Your task to perform on an android device: toggle show notifications on the lock screen Image 0: 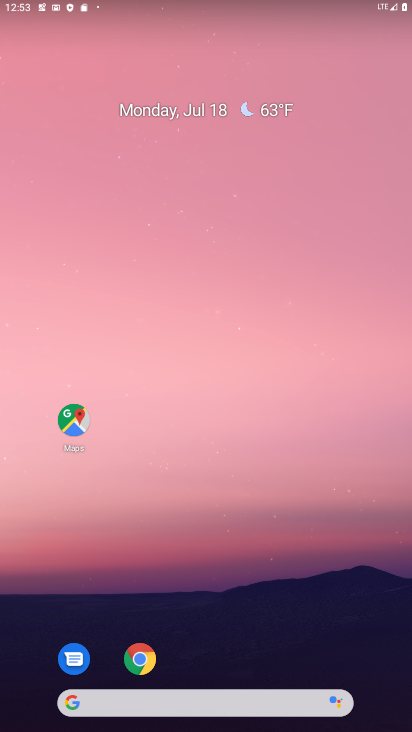
Step 0: drag from (257, 675) to (260, 11)
Your task to perform on an android device: toggle show notifications on the lock screen Image 1: 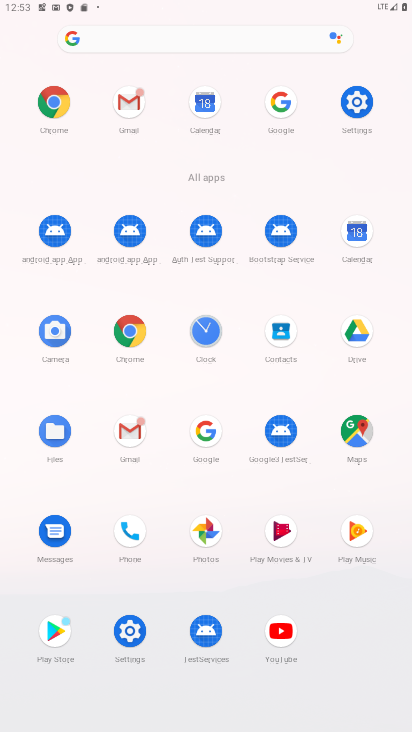
Step 1: click (363, 115)
Your task to perform on an android device: toggle show notifications on the lock screen Image 2: 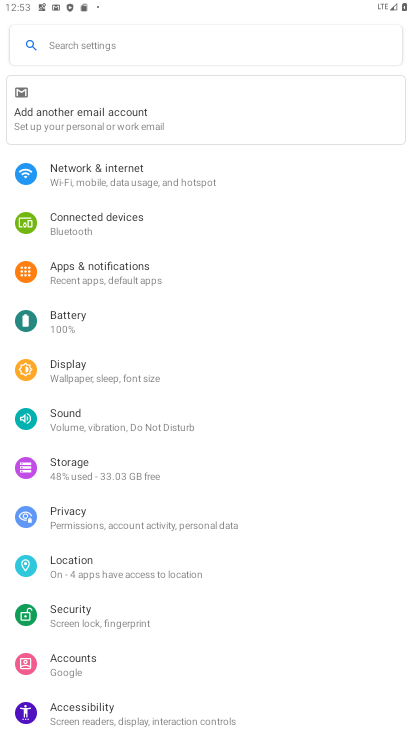
Step 2: click (66, 515)
Your task to perform on an android device: toggle show notifications on the lock screen Image 3: 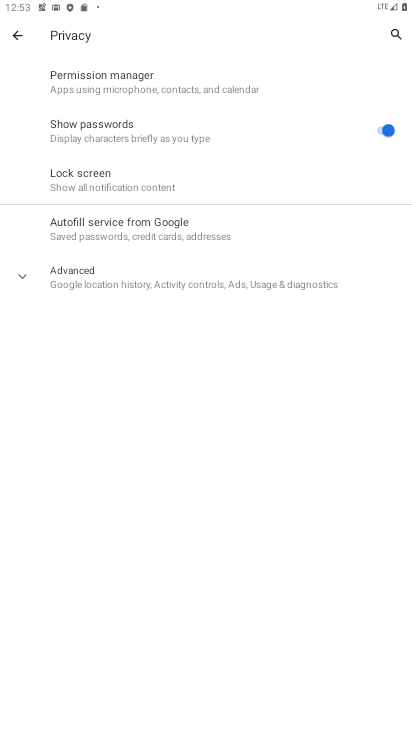
Step 3: click (99, 274)
Your task to perform on an android device: toggle show notifications on the lock screen Image 4: 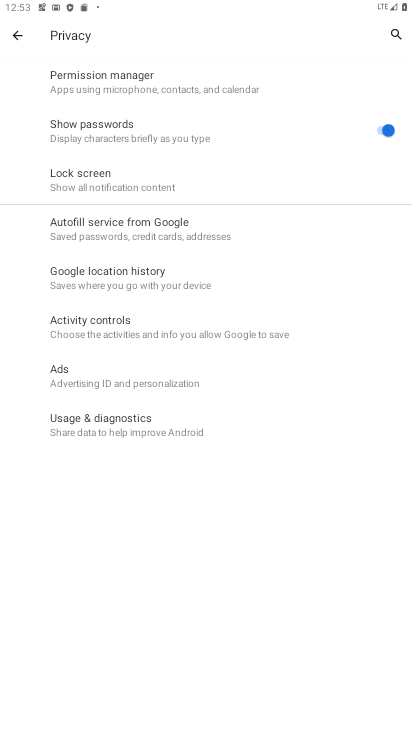
Step 4: click (87, 184)
Your task to perform on an android device: toggle show notifications on the lock screen Image 5: 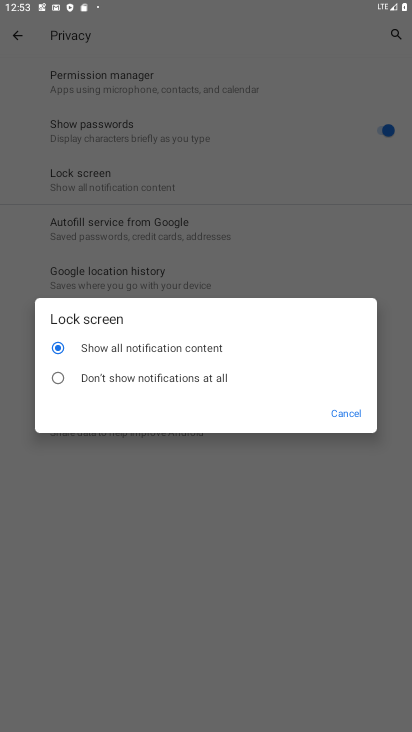
Step 5: click (187, 380)
Your task to perform on an android device: toggle show notifications on the lock screen Image 6: 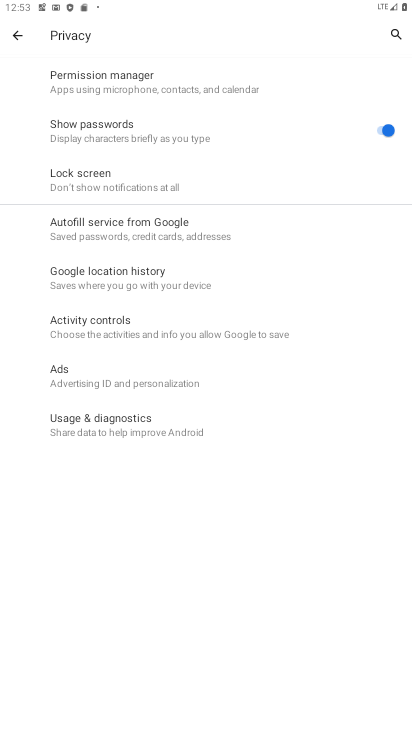
Step 6: task complete